Your task to perform on an android device: Search for the best rated circular saw on Lowes.com Image 0: 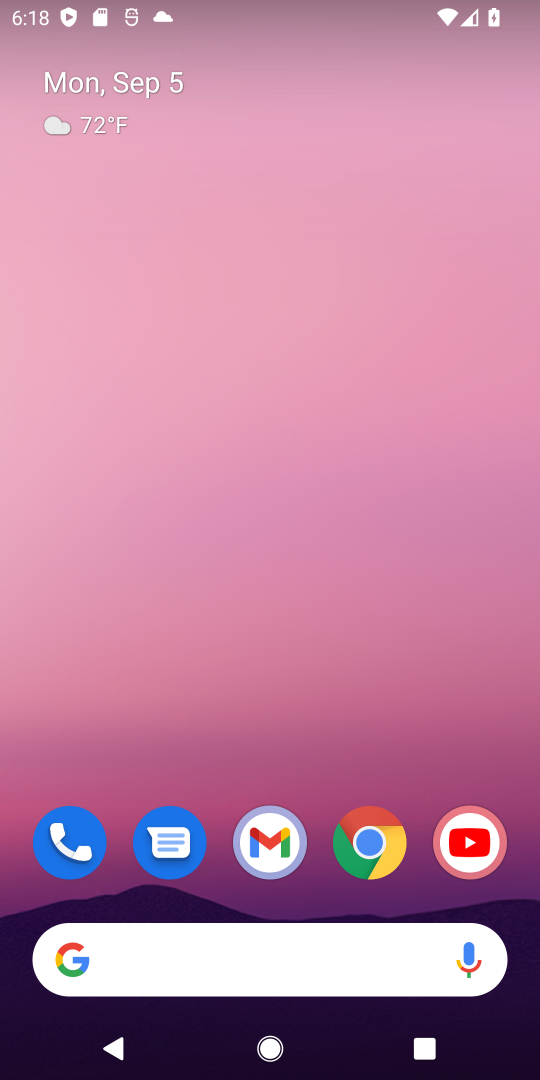
Step 0: click (370, 844)
Your task to perform on an android device: Search for the best rated circular saw on Lowes.com Image 1: 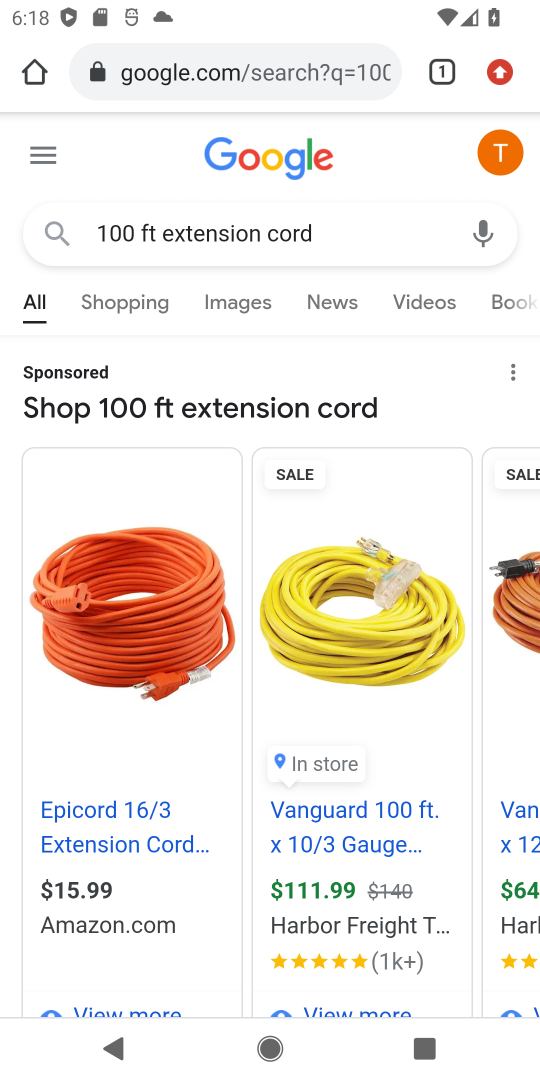
Step 1: click (259, 61)
Your task to perform on an android device: Search for the best rated circular saw on Lowes.com Image 2: 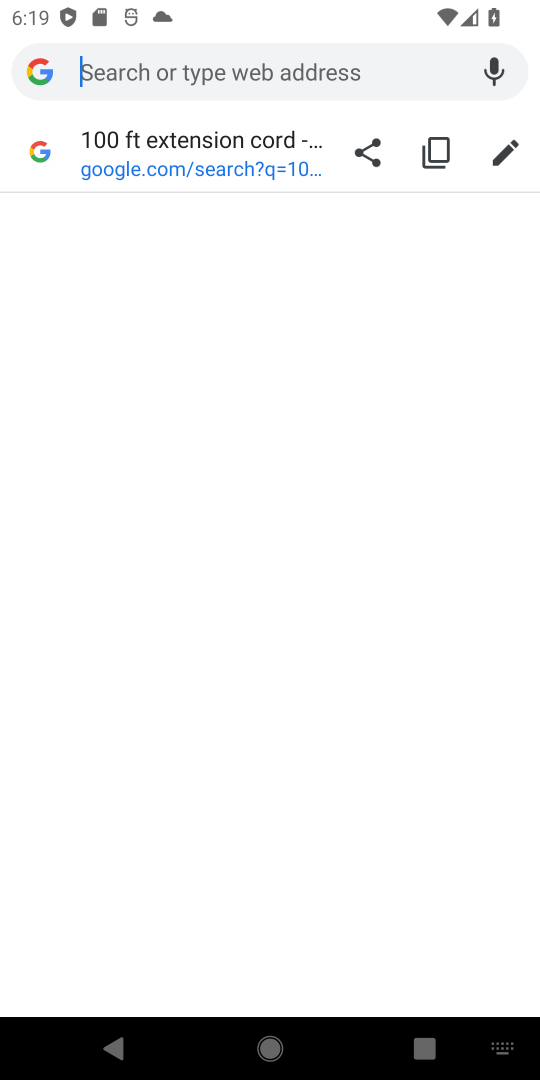
Step 2: type "Lowes.com"
Your task to perform on an android device: Search for the best rated circular saw on Lowes.com Image 3: 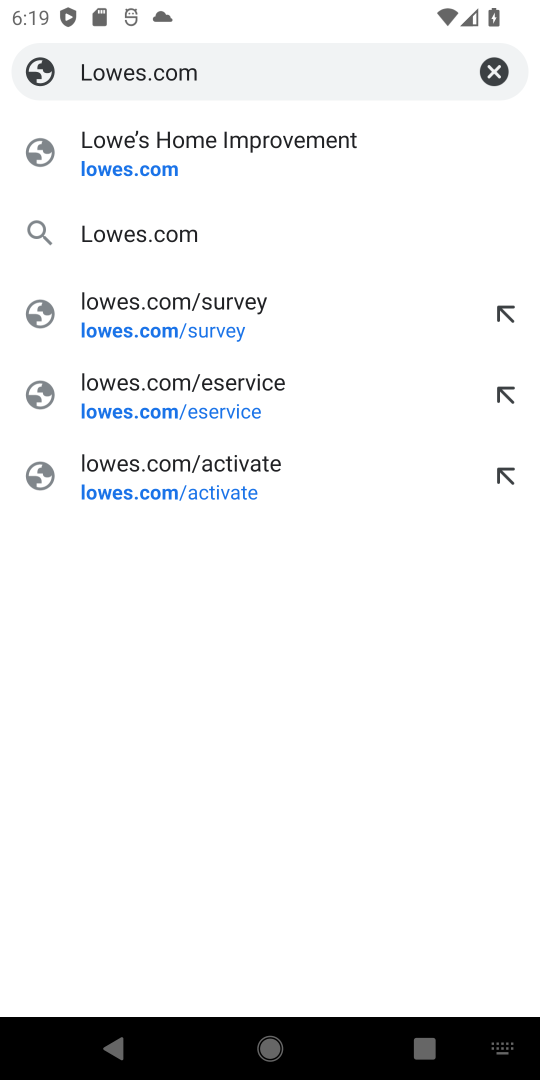
Step 3: click (193, 238)
Your task to perform on an android device: Search for the best rated circular saw on Lowes.com Image 4: 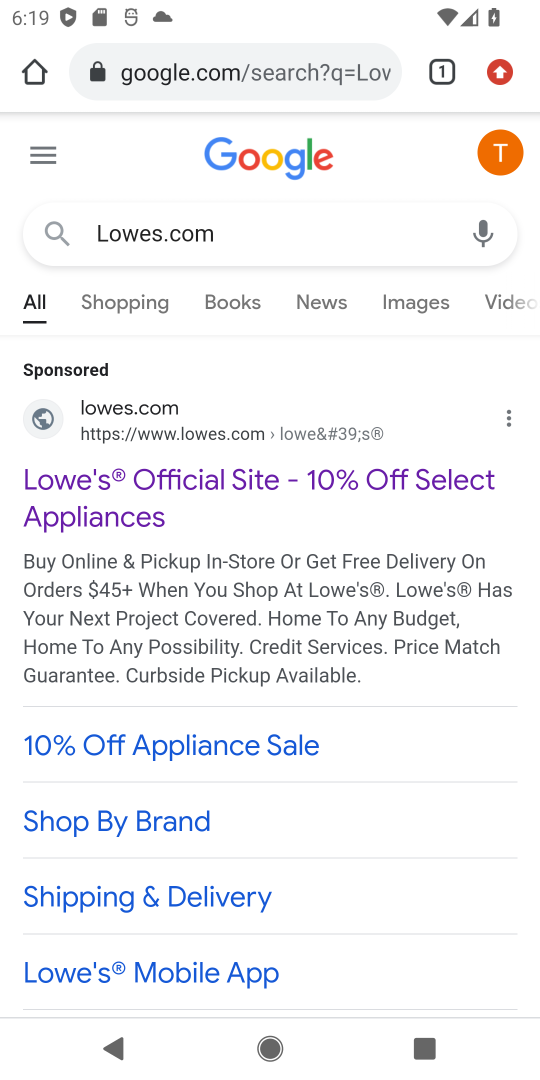
Step 4: drag from (311, 921) to (401, 450)
Your task to perform on an android device: Search for the best rated circular saw on Lowes.com Image 5: 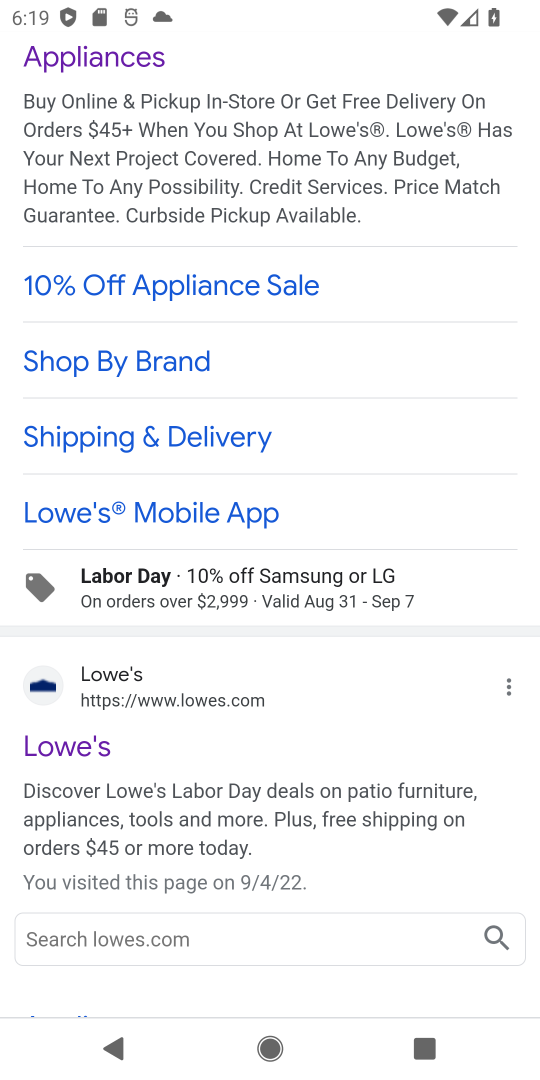
Step 5: click (122, 766)
Your task to perform on an android device: Search for the best rated circular saw on Lowes.com Image 6: 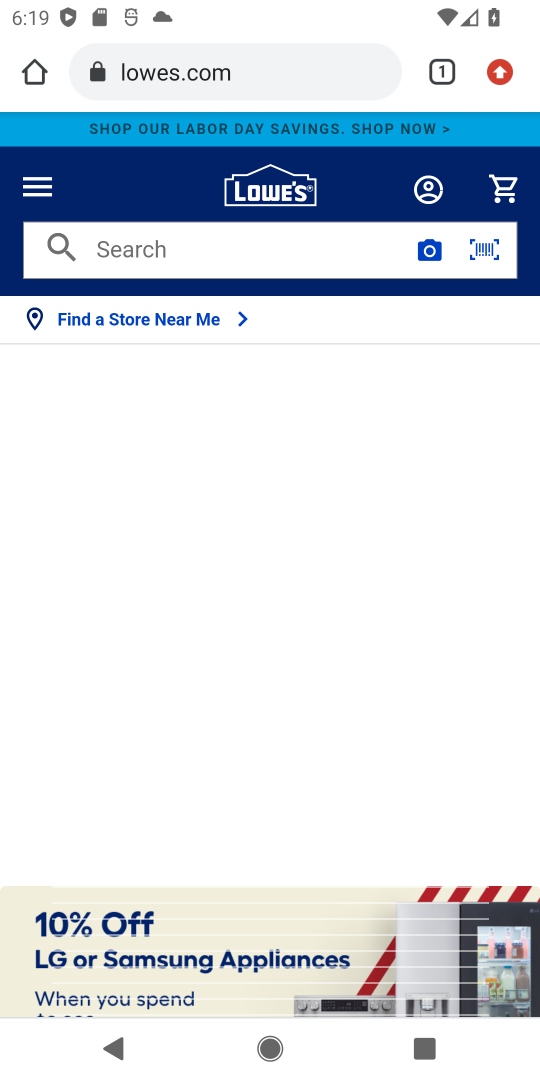
Step 6: click (261, 252)
Your task to perform on an android device: Search for the best rated circular saw on Lowes.com Image 7: 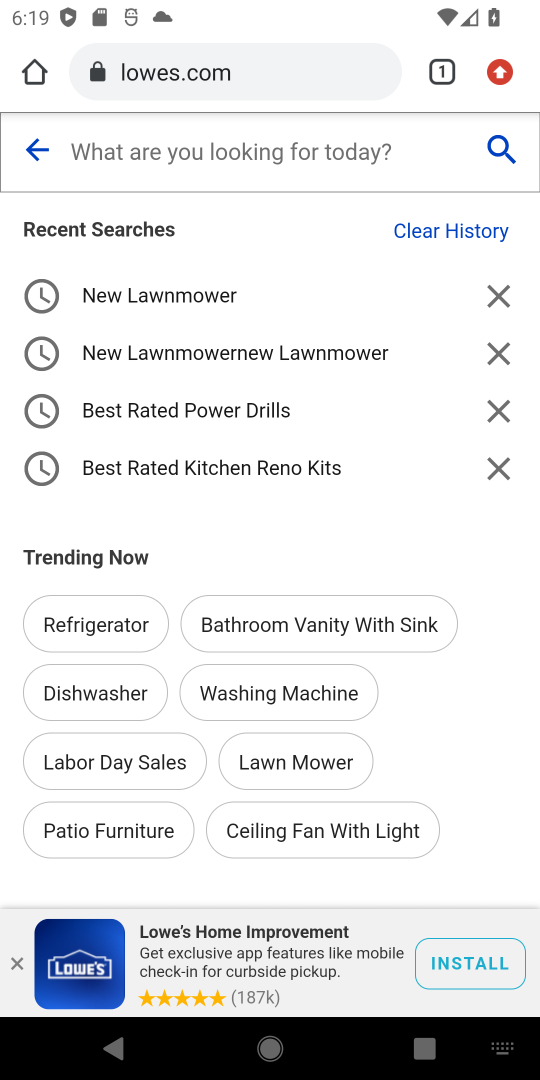
Step 7: click (200, 133)
Your task to perform on an android device: Search for the best rated circular saw on Lowes.com Image 8: 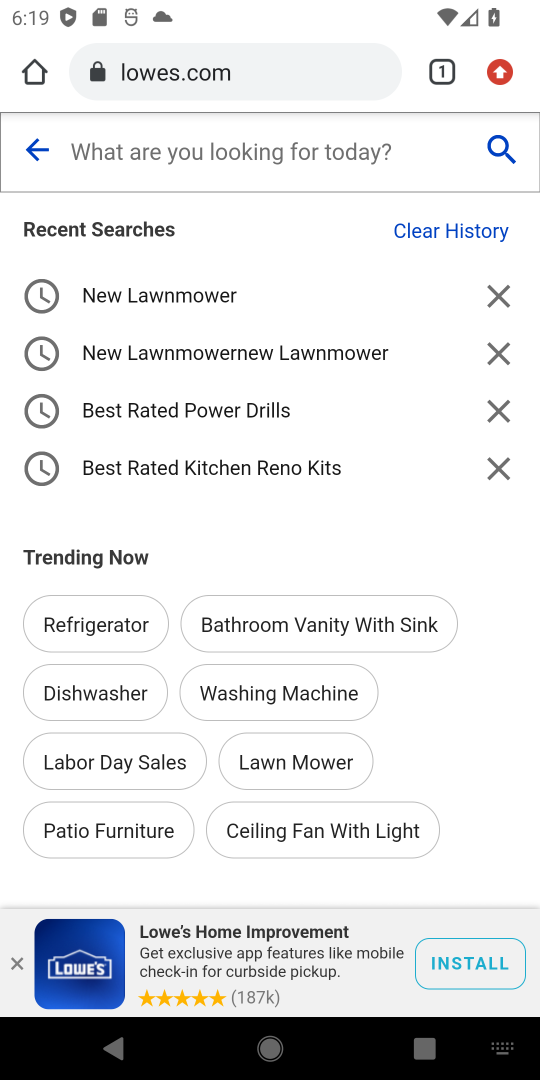
Step 8: type " best rated circular saw"
Your task to perform on an android device: Search for the best rated circular saw on Lowes.com Image 9: 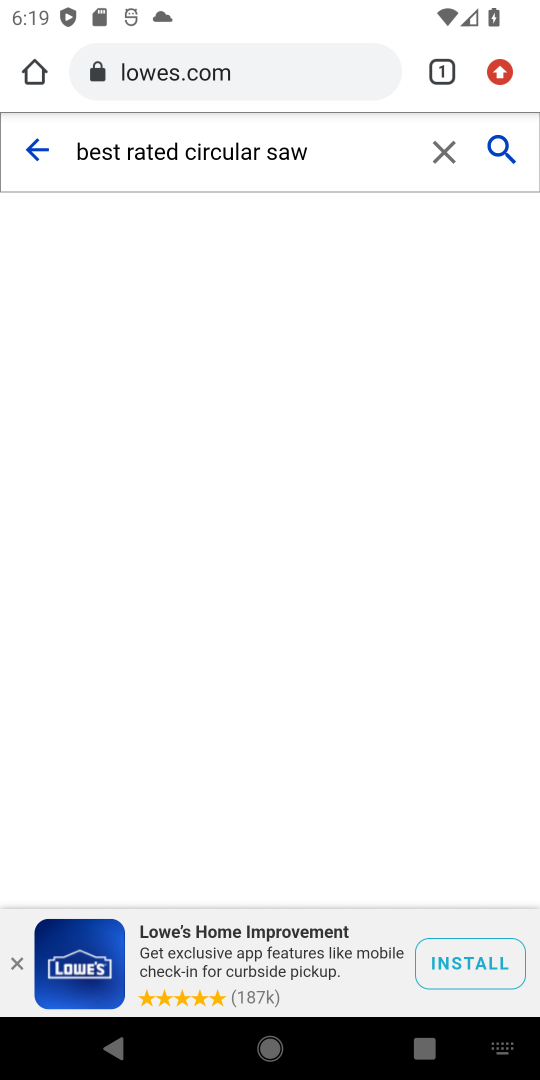
Step 9: click (495, 152)
Your task to perform on an android device: Search for the best rated circular saw on Lowes.com Image 10: 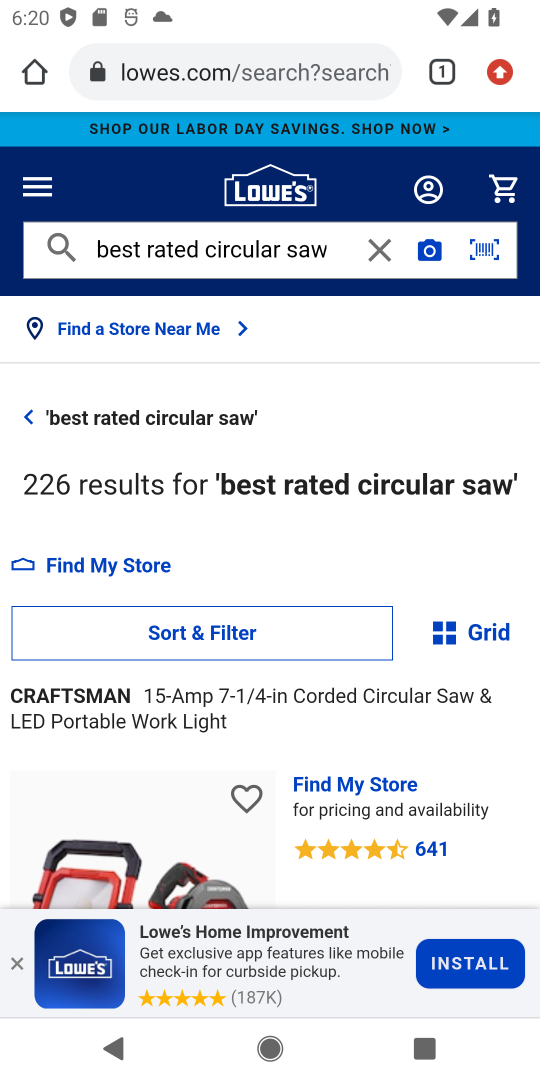
Step 10: task complete